Your task to perform on an android device: Open calendar and show me the first week of next month Image 0: 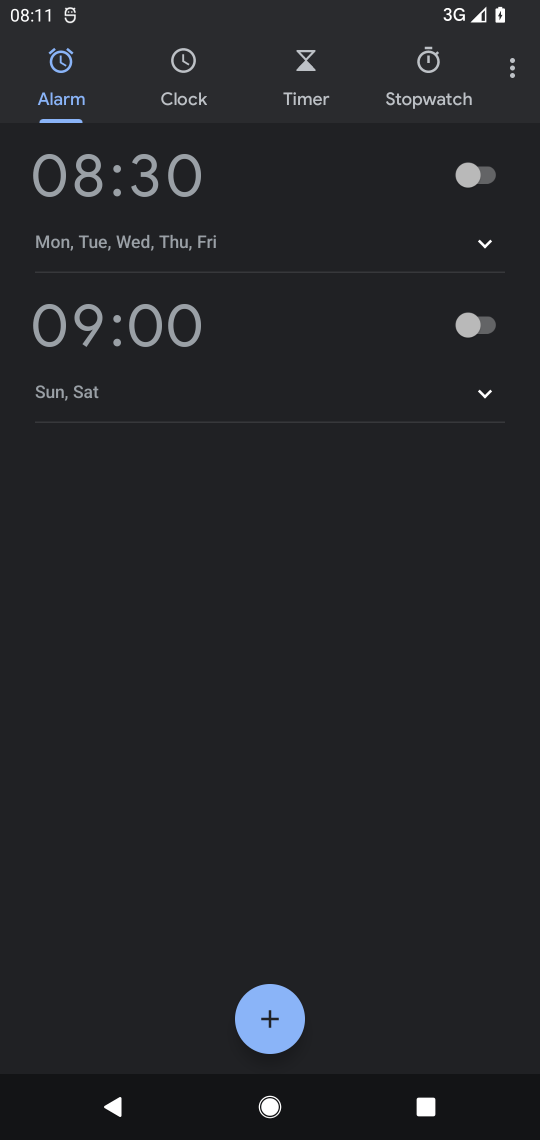
Step 0: press home button
Your task to perform on an android device: Open calendar and show me the first week of next month Image 1: 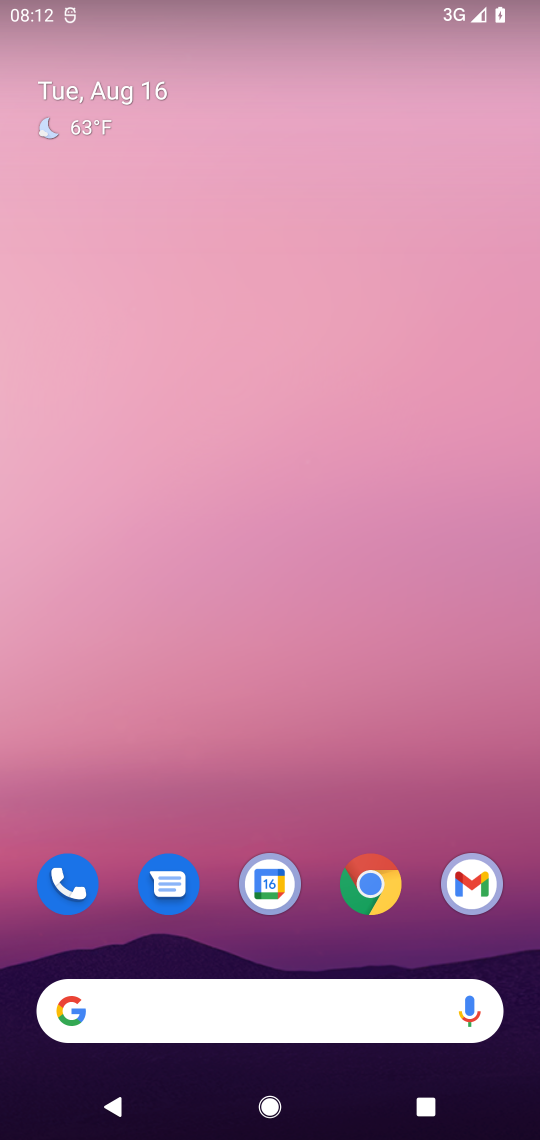
Step 1: drag from (335, 810) to (317, 75)
Your task to perform on an android device: Open calendar and show me the first week of next month Image 2: 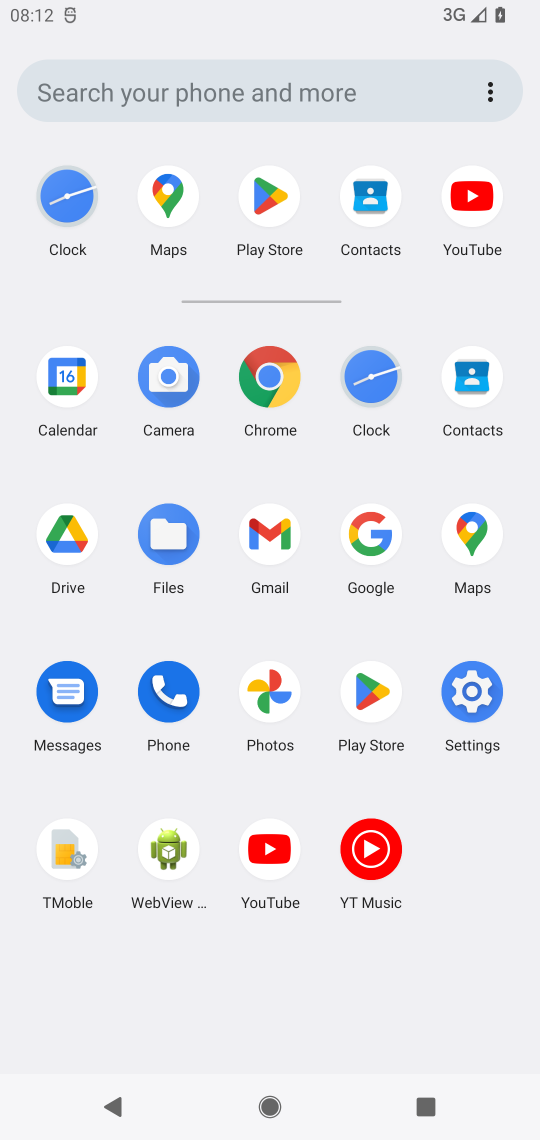
Step 2: click (57, 378)
Your task to perform on an android device: Open calendar and show me the first week of next month Image 3: 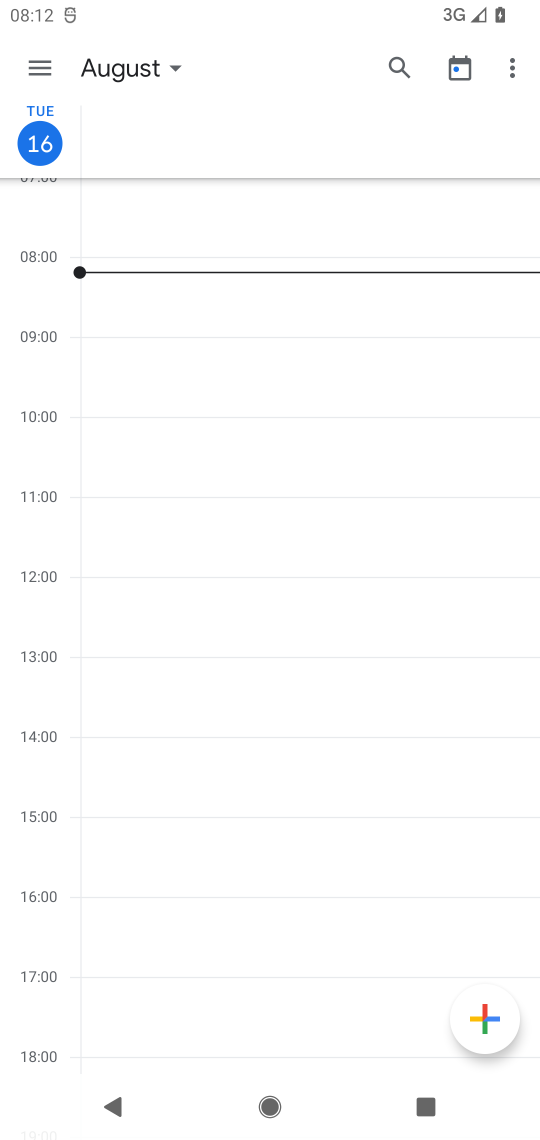
Step 3: click (35, 71)
Your task to perform on an android device: Open calendar and show me the first week of next month Image 4: 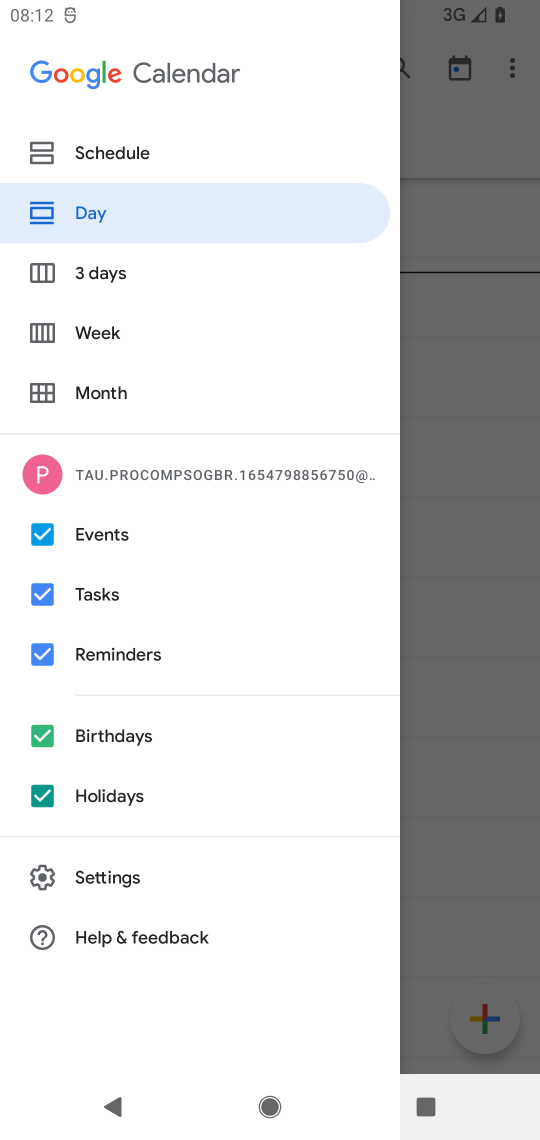
Step 4: click (112, 399)
Your task to perform on an android device: Open calendar and show me the first week of next month Image 5: 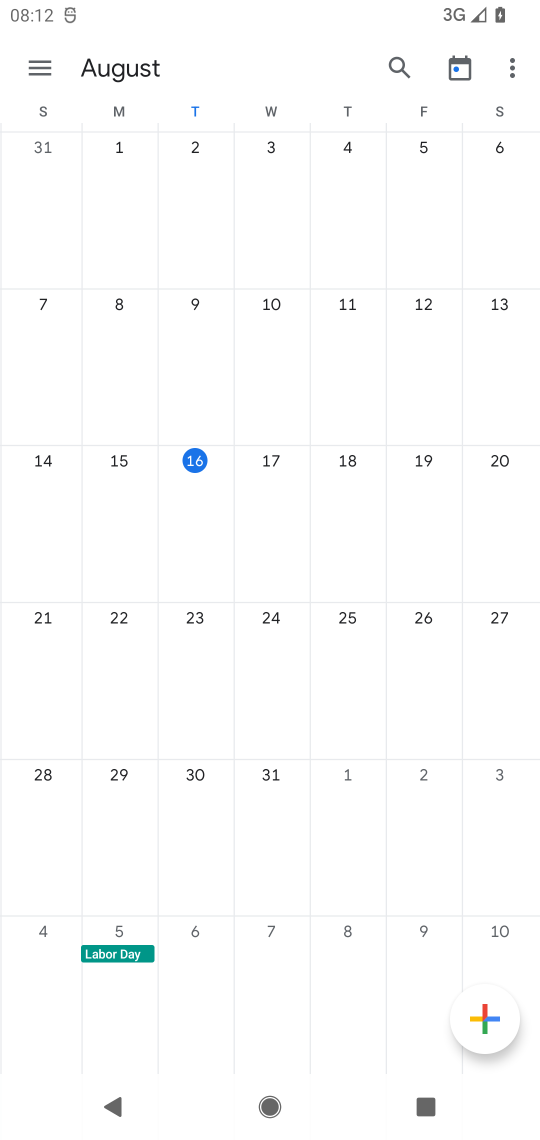
Step 5: drag from (495, 348) to (4, 326)
Your task to perform on an android device: Open calendar and show me the first week of next month Image 6: 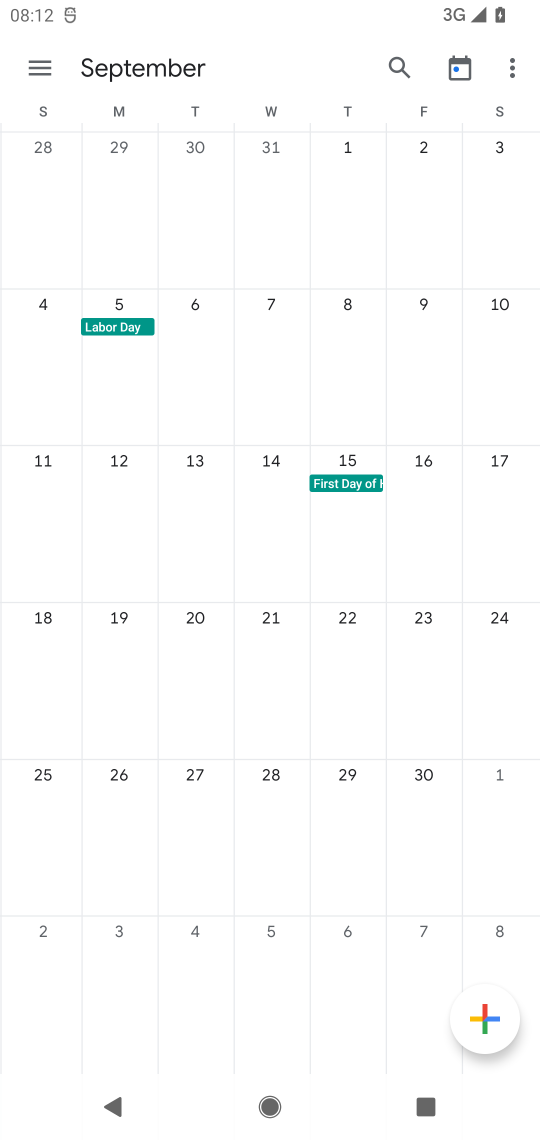
Step 6: click (37, 75)
Your task to perform on an android device: Open calendar and show me the first week of next month Image 7: 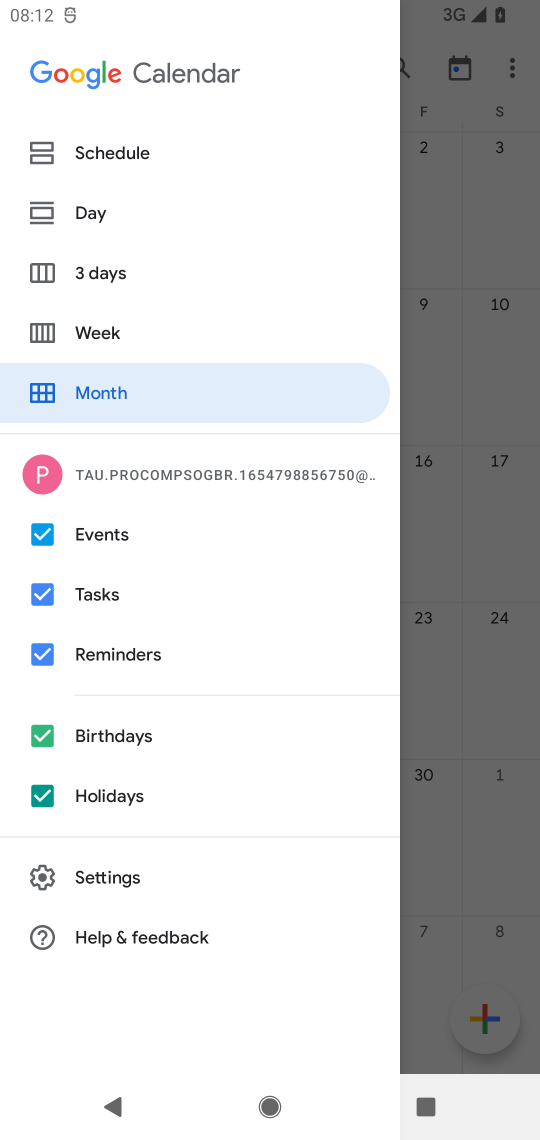
Step 7: click (121, 336)
Your task to perform on an android device: Open calendar and show me the first week of next month Image 8: 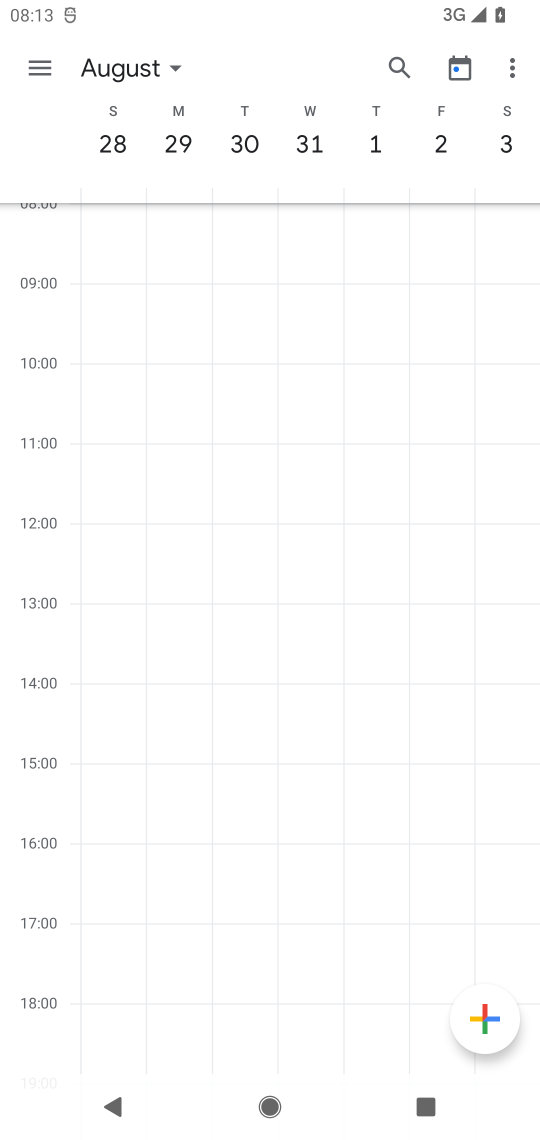
Step 8: task complete